Your task to perform on an android device: change alarm snooze length Image 0: 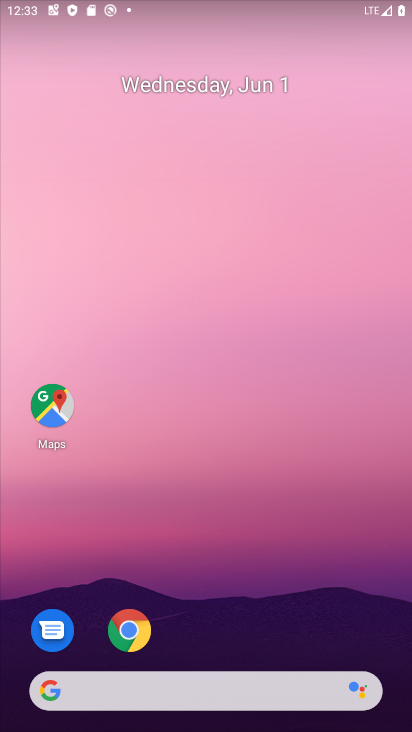
Step 0: drag from (286, 593) to (286, 101)
Your task to perform on an android device: change alarm snooze length Image 1: 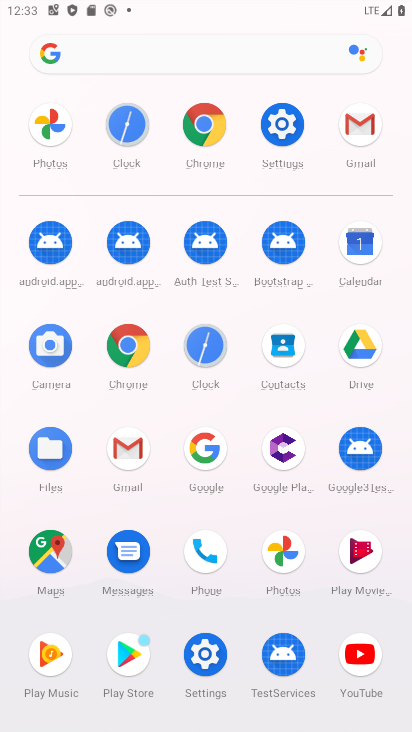
Step 1: click (130, 121)
Your task to perform on an android device: change alarm snooze length Image 2: 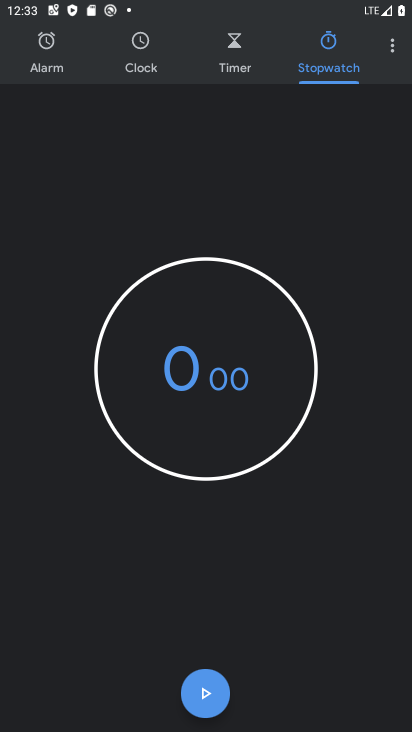
Step 2: click (391, 45)
Your task to perform on an android device: change alarm snooze length Image 3: 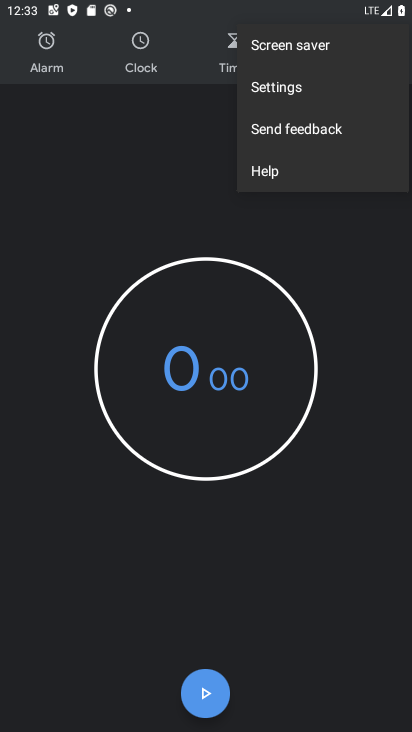
Step 3: click (276, 94)
Your task to perform on an android device: change alarm snooze length Image 4: 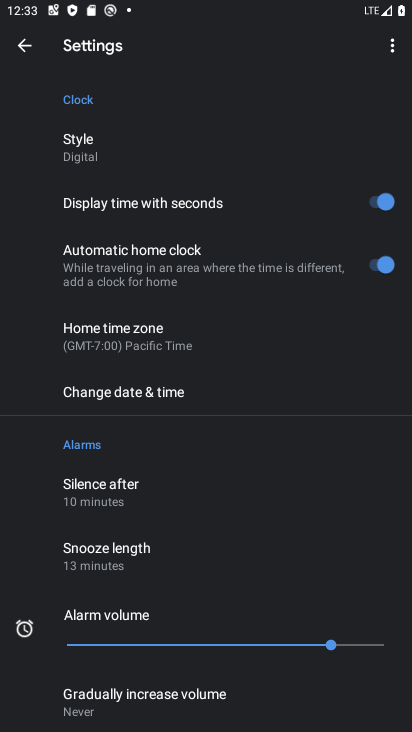
Step 4: click (124, 555)
Your task to perform on an android device: change alarm snooze length Image 5: 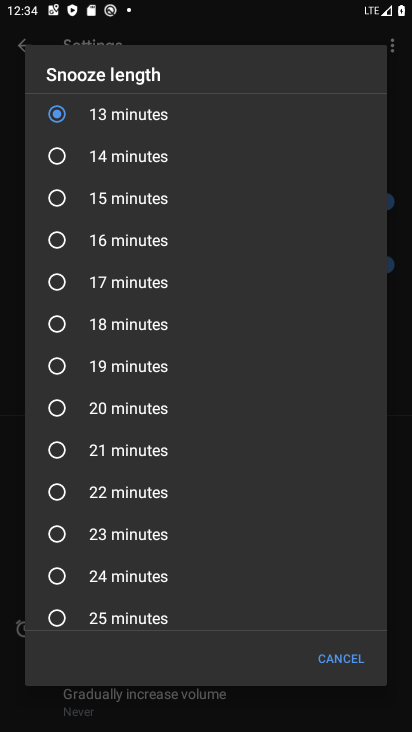
Step 5: click (57, 405)
Your task to perform on an android device: change alarm snooze length Image 6: 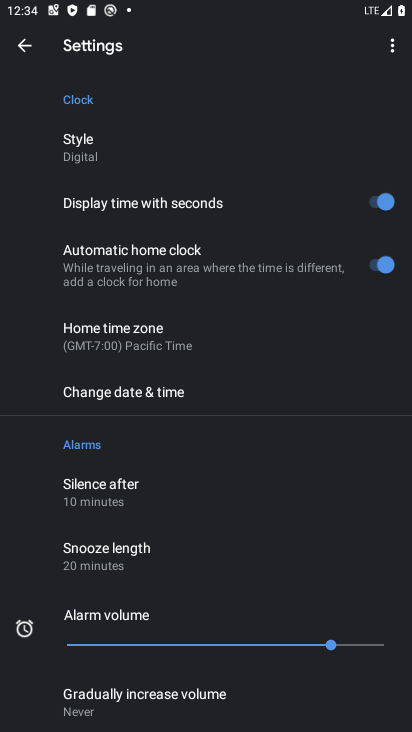
Step 6: task complete